Your task to perform on an android device: Go to Android settings Image 0: 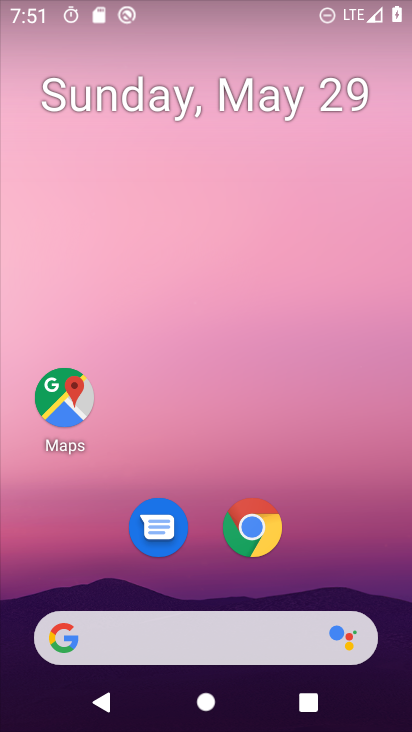
Step 0: drag from (400, 629) to (270, 66)
Your task to perform on an android device: Go to Android settings Image 1: 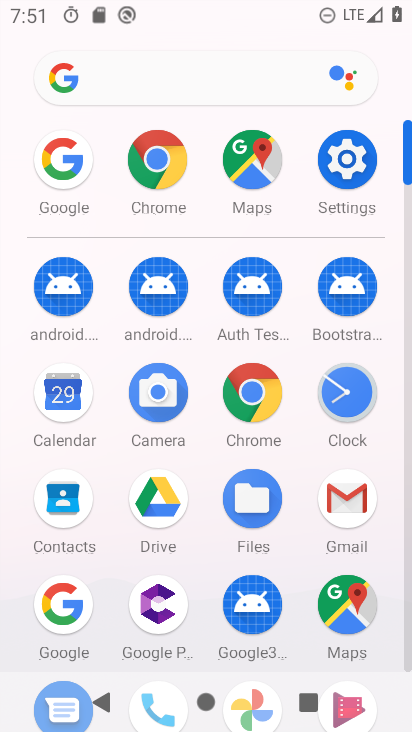
Step 1: click (354, 169)
Your task to perform on an android device: Go to Android settings Image 2: 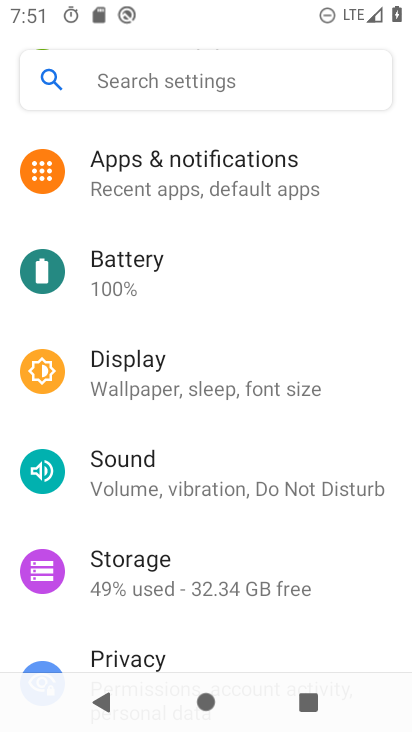
Step 2: drag from (175, 622) to (220, 79)
Your task to perform on an android device: Go to Android settings Image 3: 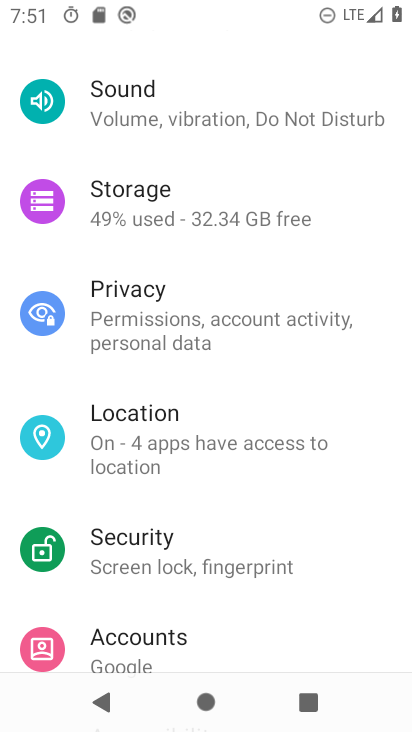
Step 3: drag from (177, 618) to (212, 64)
Your task to perform on an android device: Go to Android settings Image 4: 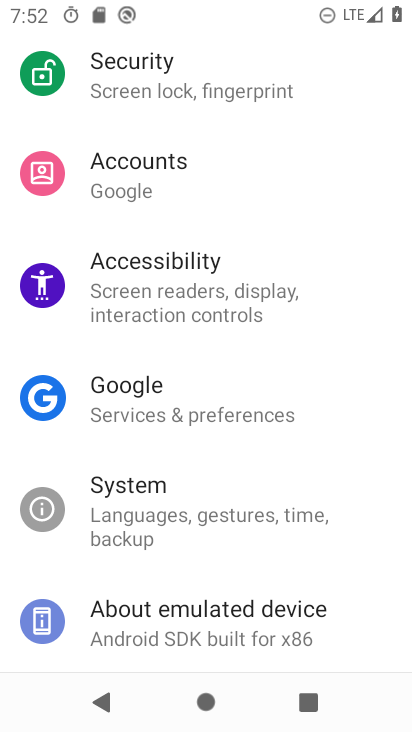
Step 4: click (161, 619)
Your task to perform on an android device: Go to Android settings Image 5: 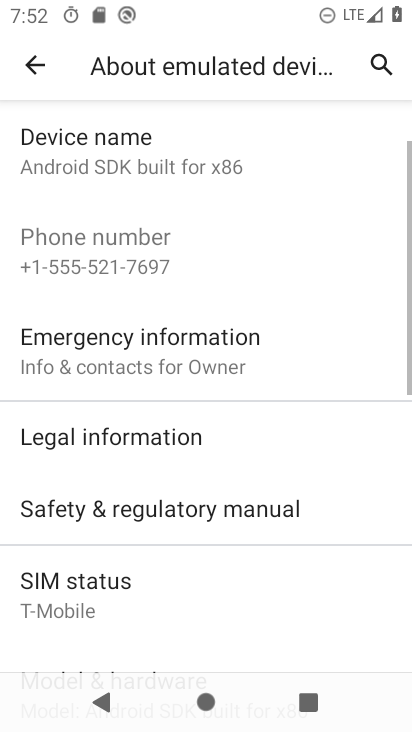
Step 5: drag from (161, 619) to (176, 87)
Your task to perform on an android device: Go to Android settings Image 6: 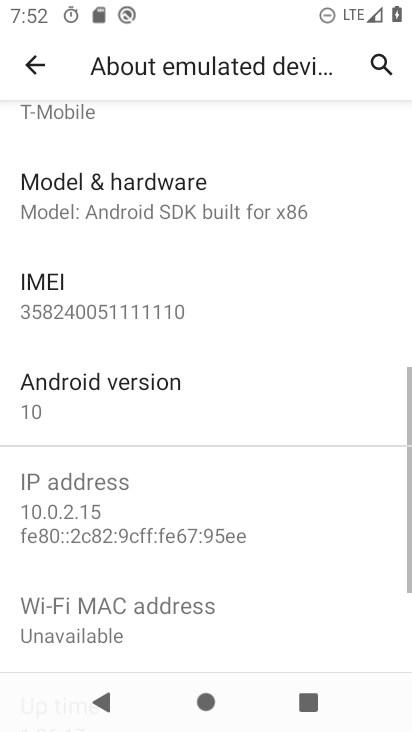
Step 6: click (161, 406)
Your task to perform on an android device: Go to Android settings Image 7: 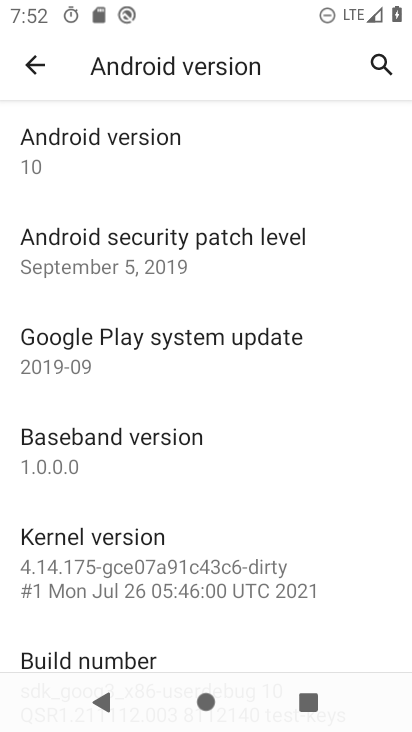
Step 7: task complete